Your task to perform on an android device: Is it going to rain today? Image 0: 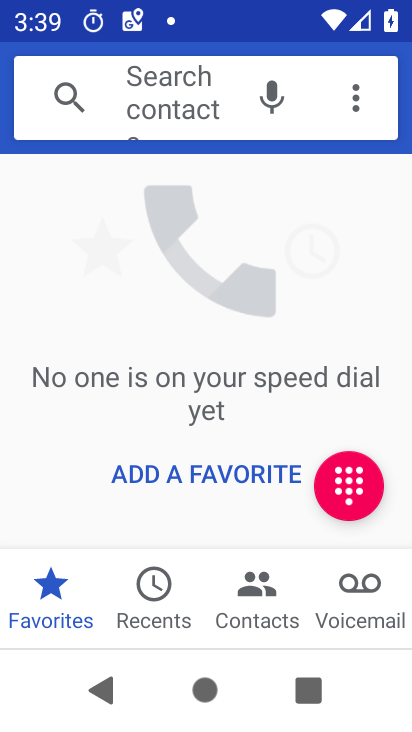
Step 0: press home button
Your task to perform on an android device: Is it going to rain today? Image 1: 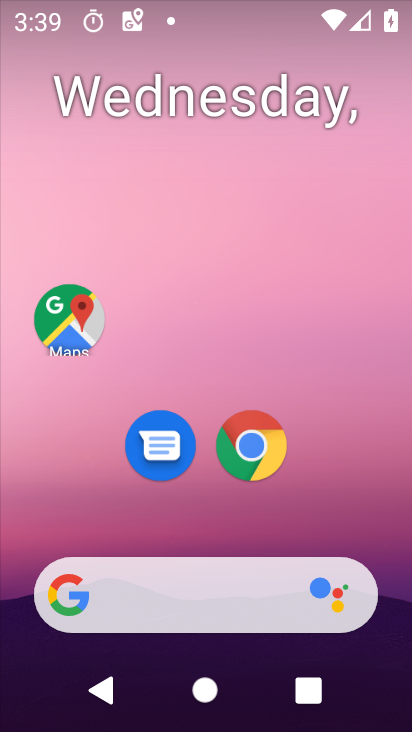
Step 1: drag from (231, 505) to (209, 93)
Your task to perform on an android device: Is it going to rain today? Image 2: 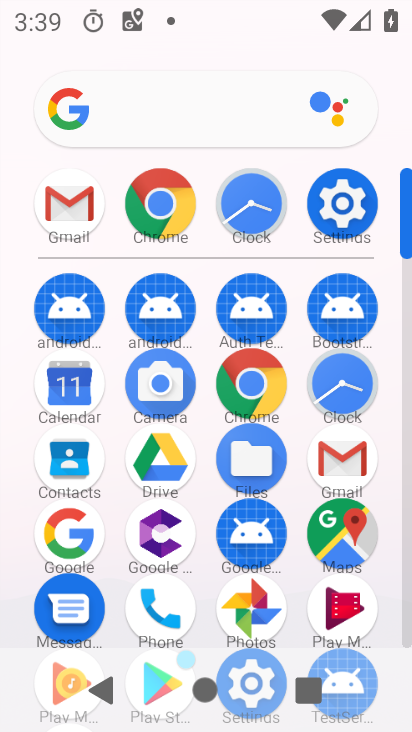
Step 2: click (65, 527)
Your task to perform on an android device: Is it going to rain today? Image 3: 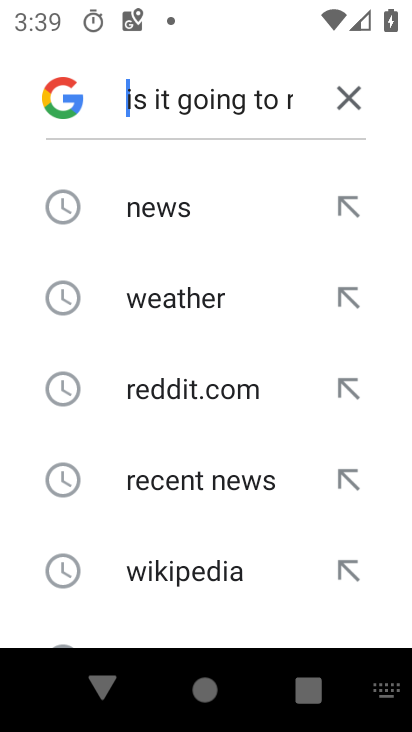
Step 3: click (342, 104)
Your task to perform on an android device: Is it going to rain today? Image 4: 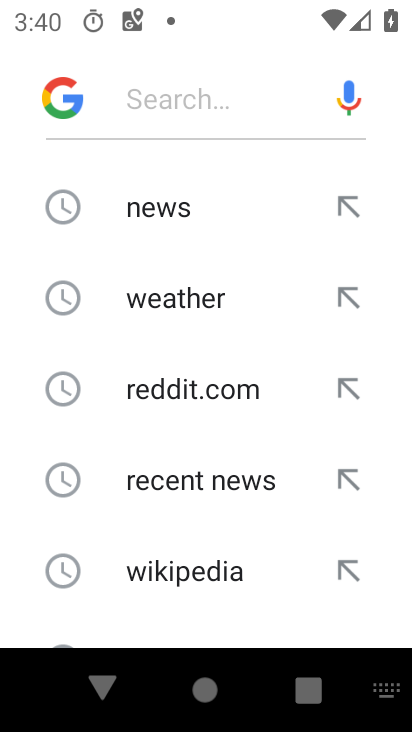
Step 4: type "is it going to rain today"
Your task to perform on an android device: Is it going to rain today? Image 5: 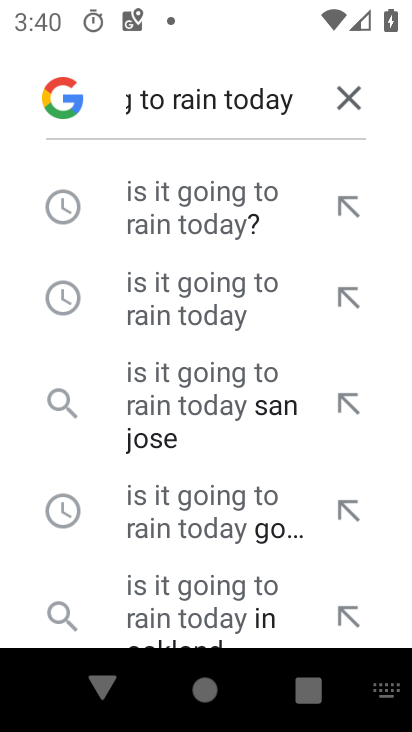
Step 5: click (156, 217)
Your task to perform on an android device: Is it going to rain today? Image 6: 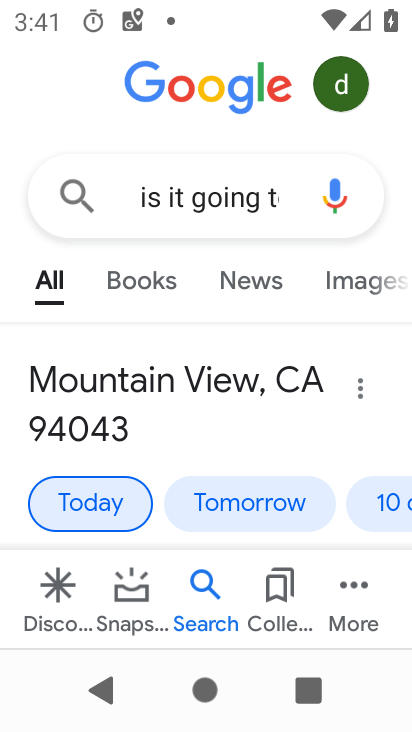
Step 6: task complete